Your task to perform on an android device: set the timer Image 0: 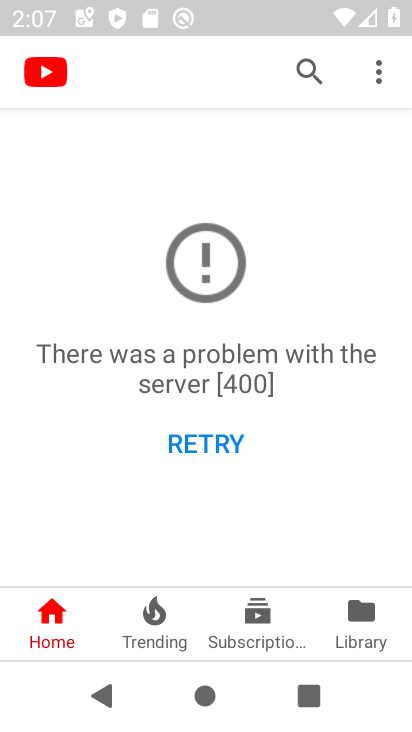
Step 0: press home button
Your task to perform on an android device: set the timer Image 1: 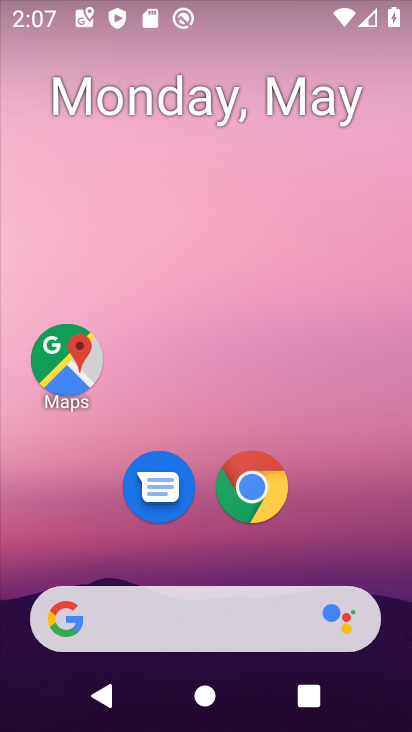
Step 1: drag from (396, 544) to (295, 102)
Your task to perform on an android device: set the timer Image 2: 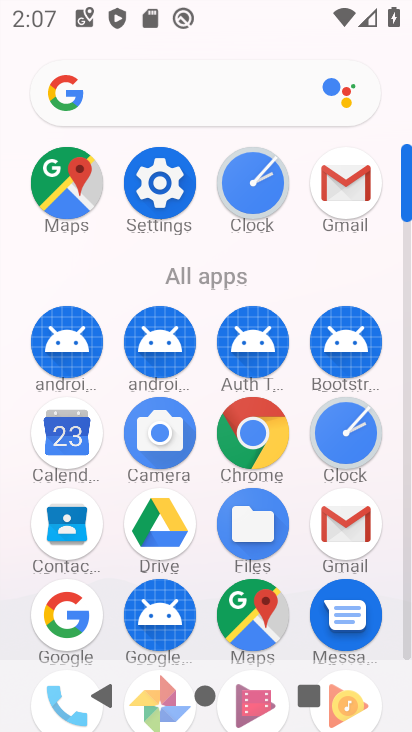
Step 2: click (254, 168)
Your task to perform on an android device: set the timer Image 3: 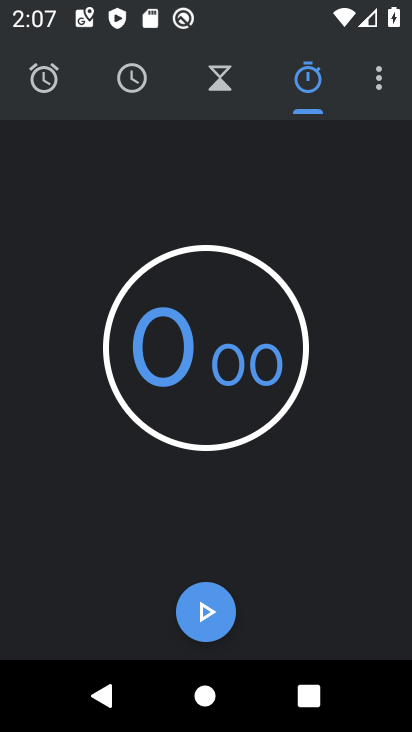
Step 3: click (230, 85)
Your task to perform on an android device: set the timer Image 4: 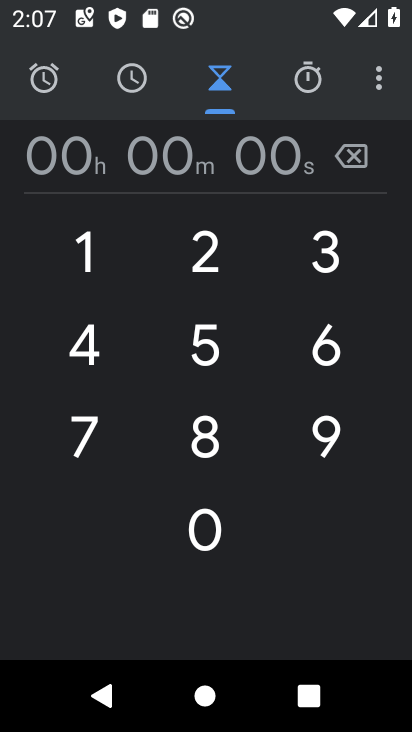
Step 4: type "100000"
Your task to perform on an android device: set the timer Image 5: 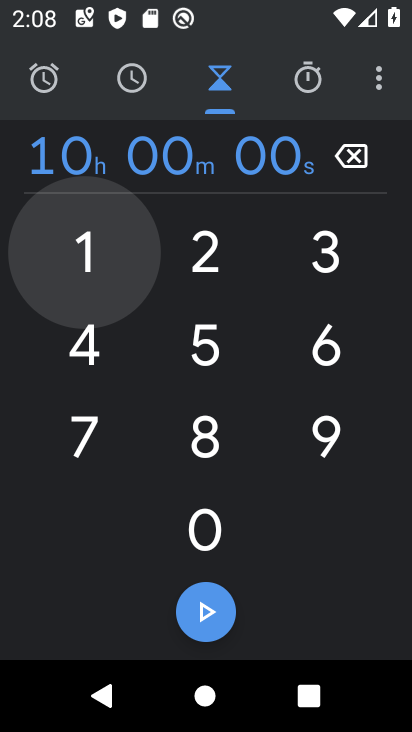
Step 5: click (227, 605)
Your task to perform on an android device: set the timer Image 6: 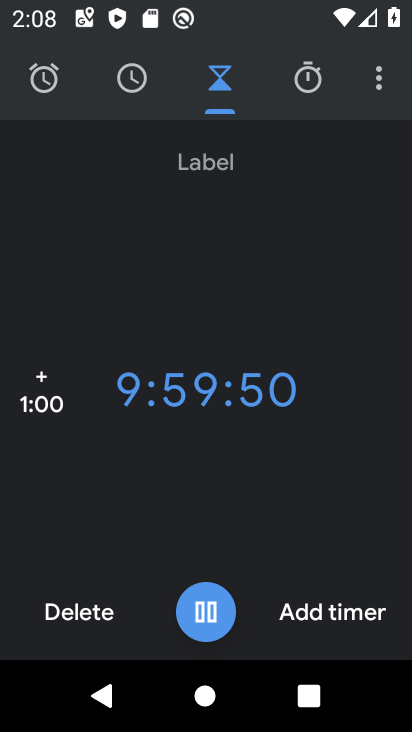
Step 6: task complete